Your task to perform on an android device: add a label to a message in the gmail app Image 0: 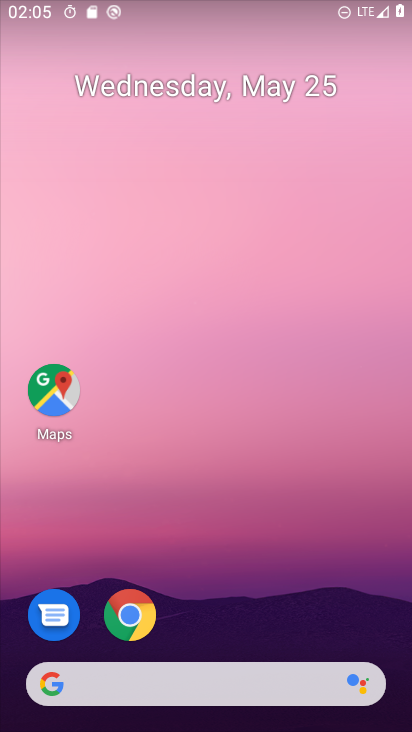
Step 0: press home button
Your task to perform on an android device: add a label to a message in the gmail app Image 1: 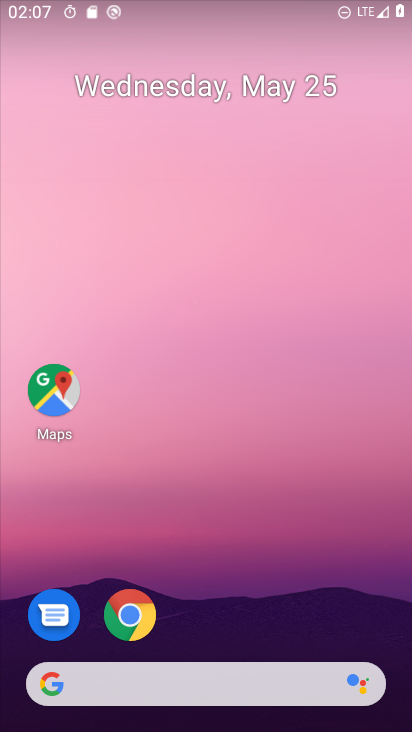
Step 1: drag from (204, 542) to (162, 334)
Your task to perform on an android device: add a label to a message in the gmail app Image 2: 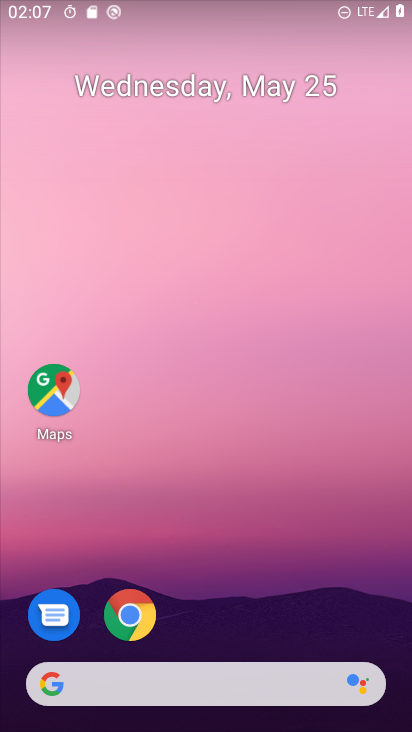
Step 2: drag from (244, 699) to (154, 185)
Your task to perform on an android device: add a label to a message in the gmail app Image 3: 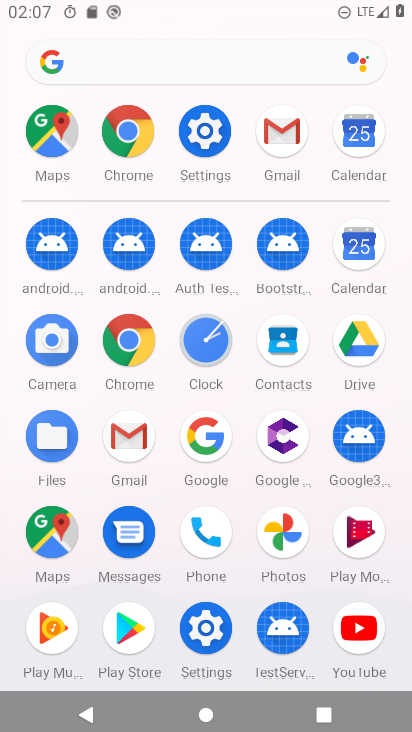
Step 3: click (136, 435)
Your task to perform on an android device: add a label to a message in the gmail app Image 4: 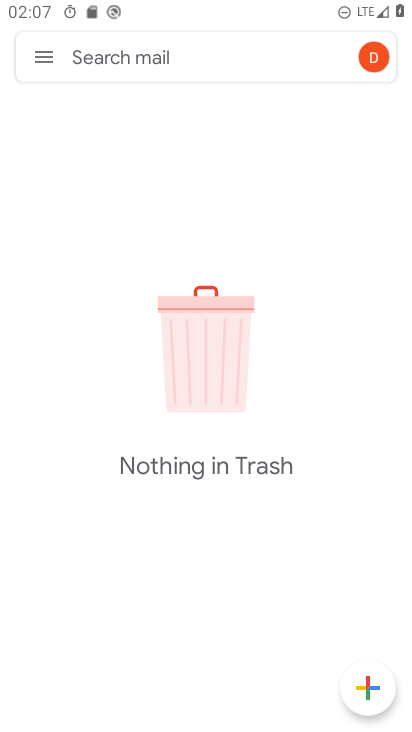
Step 4: click (35, 75)
Your task to perform on an android device: add a label to a message in the gmail app Image 5: 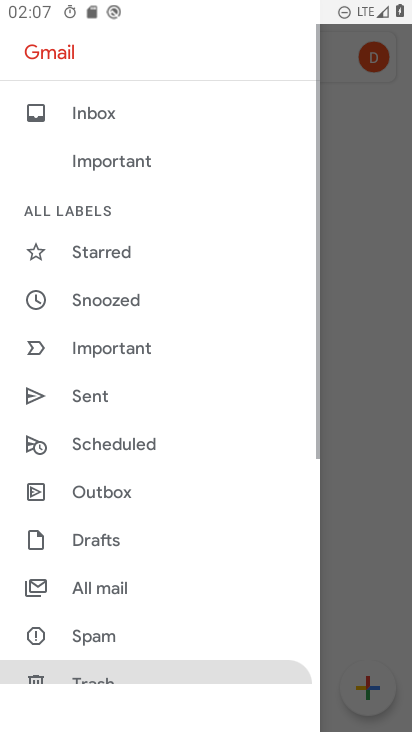
Step 5: drag from (159, 548) to (170, 358)
Your task to perform on an android device: add a label to a message in the gmail app Image 6: 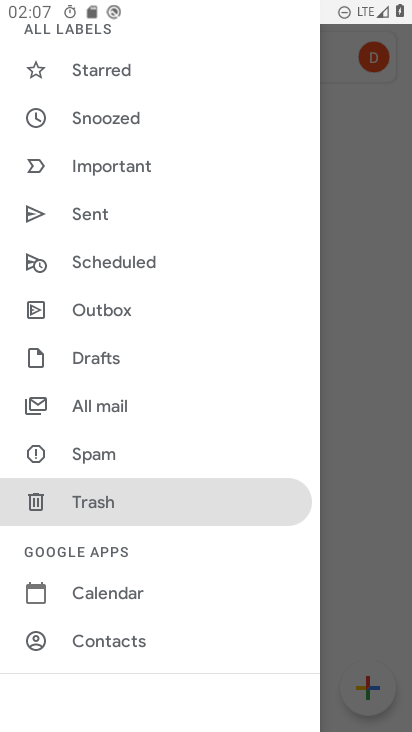
Step 6: drag from (152, 601) to (189, 430)
Your task to perform on an android device: add a label to a message in the gmail app Image 7: 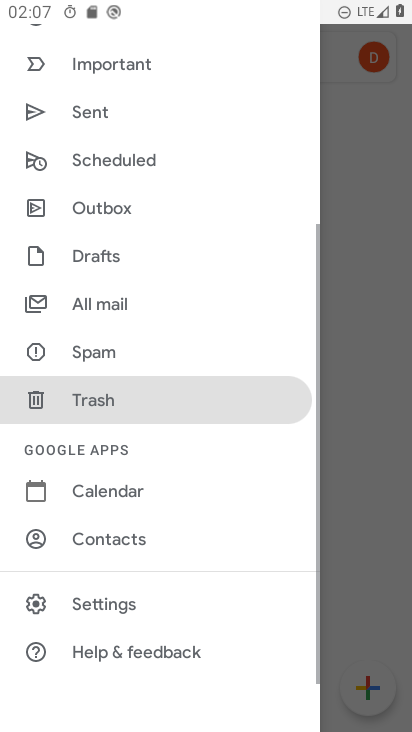
Step 7: click (156, 594)
Your task to perform on an android device: add a label to a message in the gmail app Image 8: 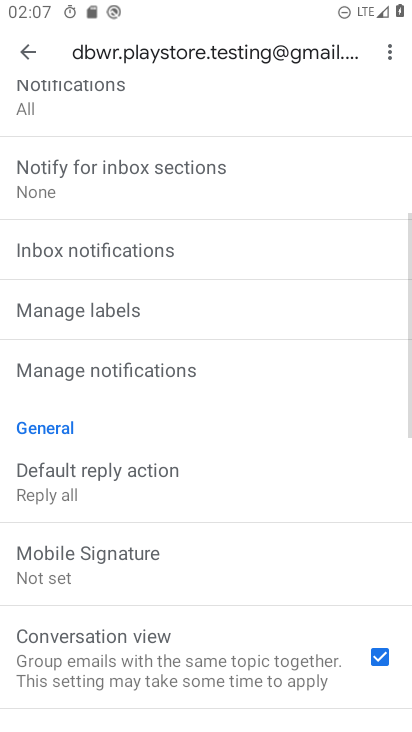
Step 8: drag from (156, 588) to (196, 424)
Your task to perform on an android device: add a label to a message in the gmail app Image 9: 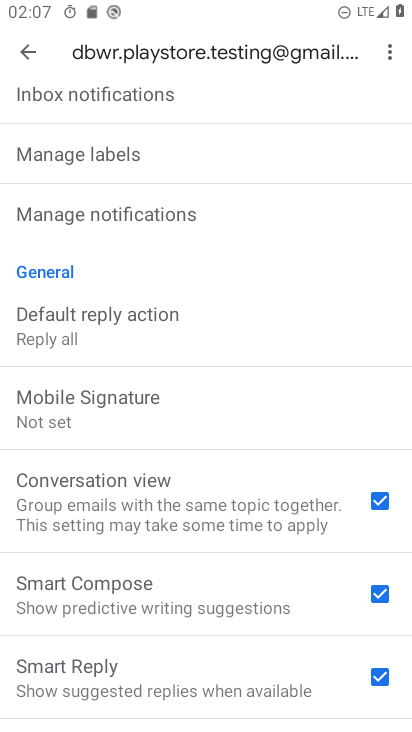
Step 9: click (104, 171)
Your task to perform on an android device: add a label to a message in the gmail app Image 10: 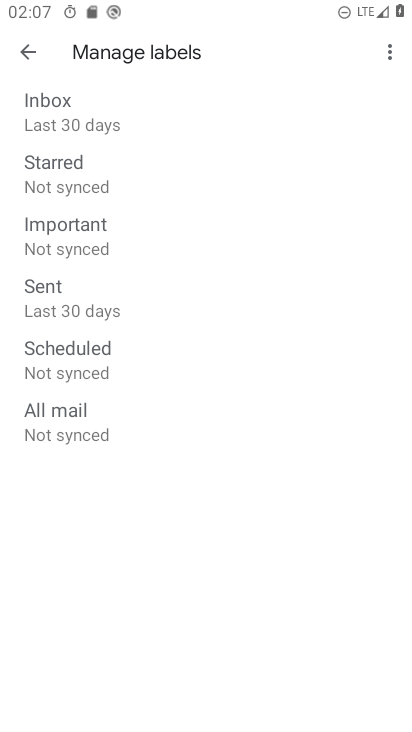
Step 10: click (132, 208)
Your task to perform on an android device: add a label to a message in the gmail app Image 11: 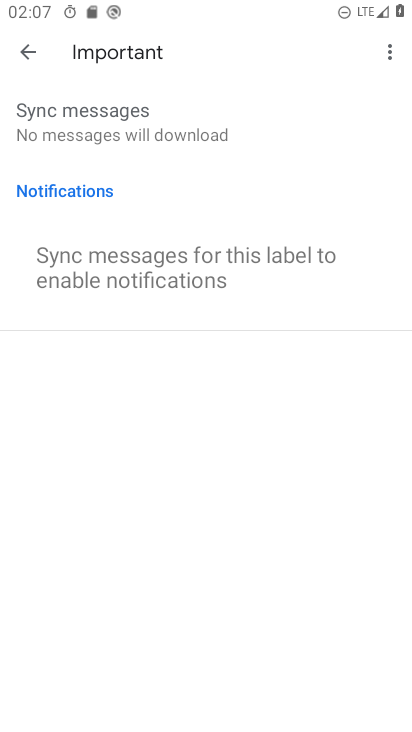
Step 11: task complete